Your task to perform on an android device: Go to battery settings Image 0: 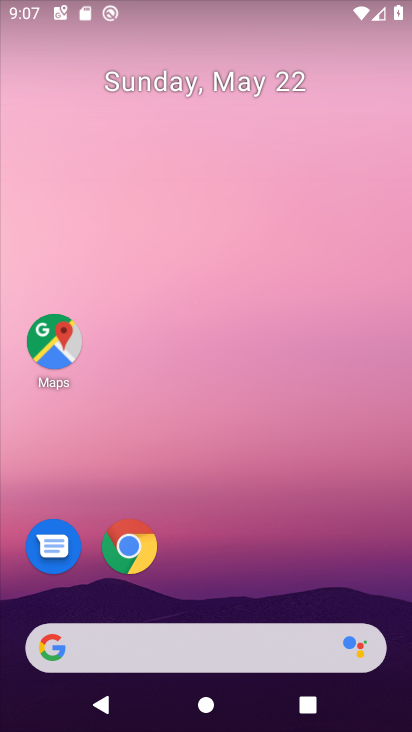
Step 0: drag from (372, 600) to (343, 156)
Your task to perform on an android device: Go to battery settings Image 1: 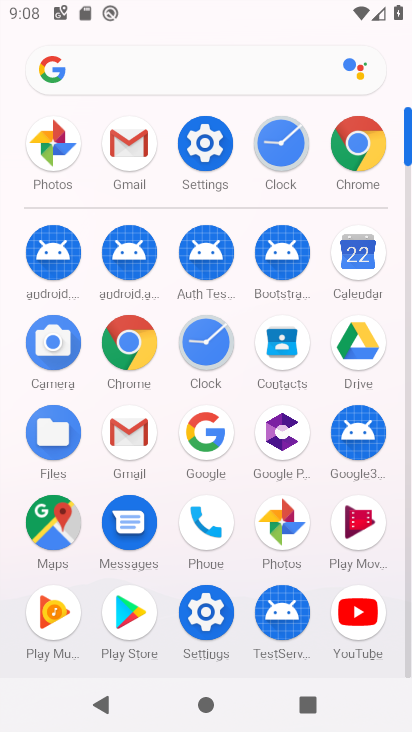
Step 1: click (205, 154)
Your task to perform on an android device: Go to battery settings Image 2: 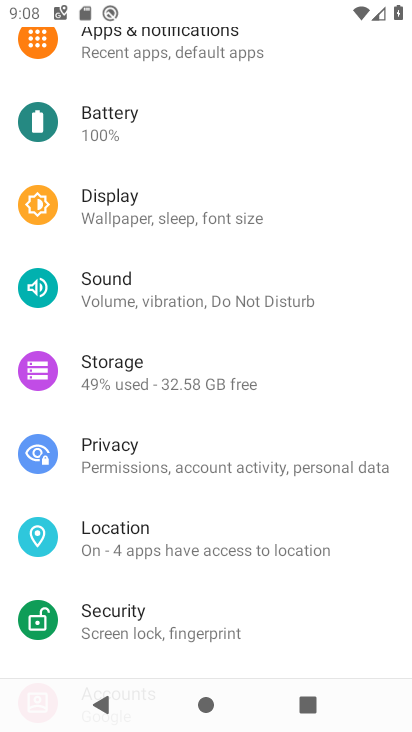
Step 2: drag from (369, 596) to (357, 308)
Your task to perform on an android device: Go to battery settings Image 3: 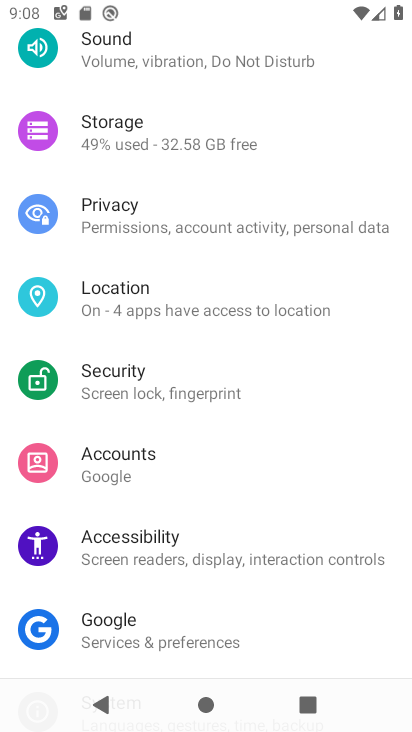
Step 3: drag from (353, 597) to (344, 385)
Your task to perform on an android device: Go to battery settings Image 4: 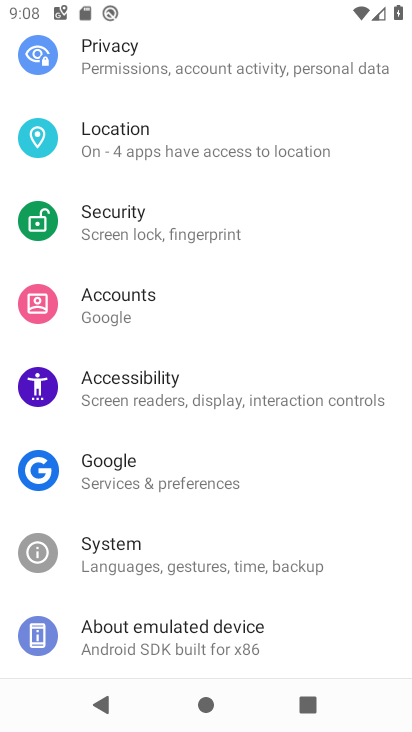
Step 4: drag from (360, 598) to (356, 416)
Your task to perform on an android device: Go to battery settings Image 5: 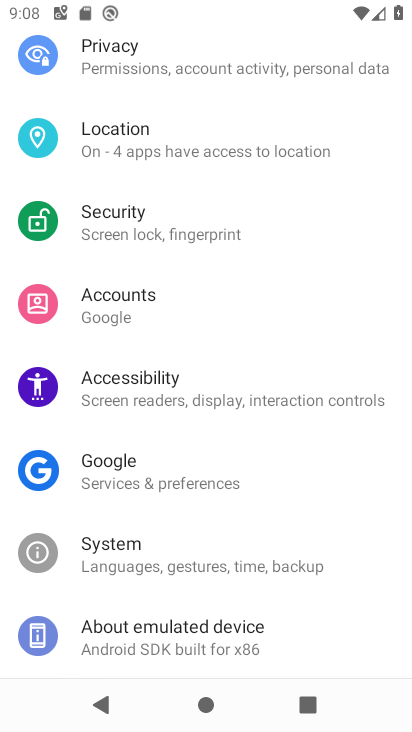
Step 5: drag from (346, 267) to (352, 417)
Your task to perform on an android device: Go to battery settings Image 6: 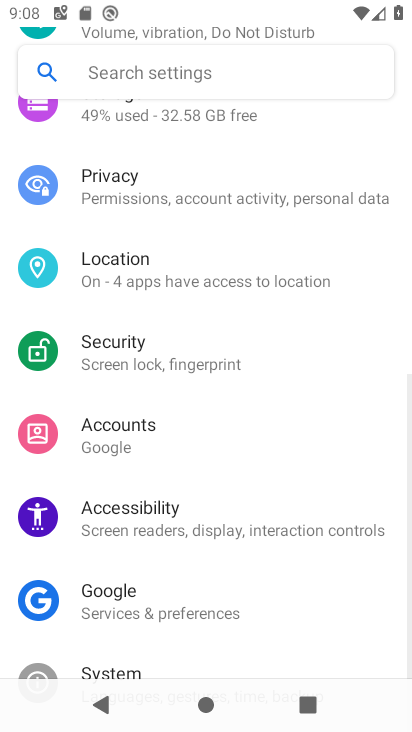
Step 6: drag from (360, 252) to (350, 392)
Your task to perform on an android device: Go to battery settings Image 7: 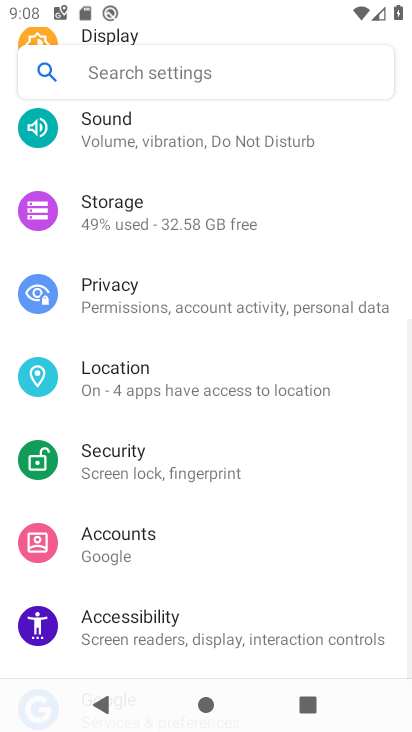
Step 7: drag from (355, 222) to (348, 372)
Your task to perform on an android device: Go to battery settings Image 8: 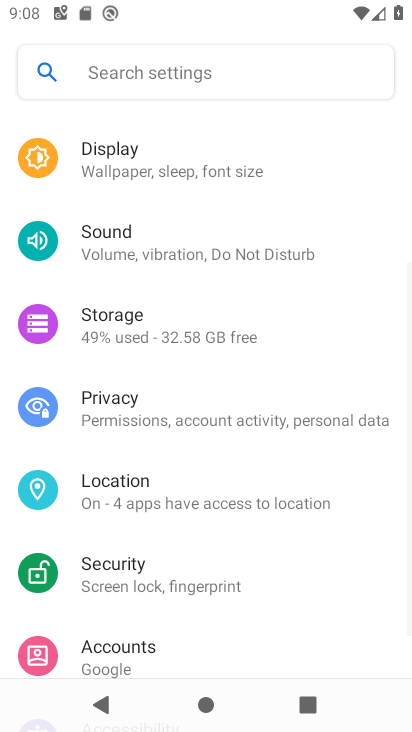
Step 8: drag from (356, 223) to (347, 387)
Your task to perform on an android device: Go to battery settings Image 9: 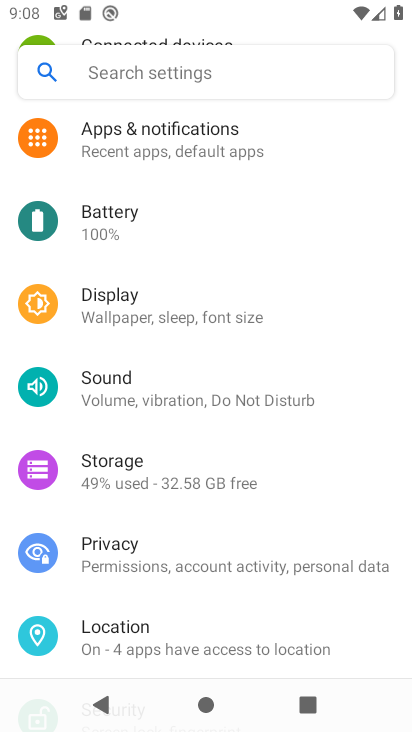
Step 9: drag from (351, 217) to (362, 412)
Your task to perform on an android device: Go to battery settings Image 10: 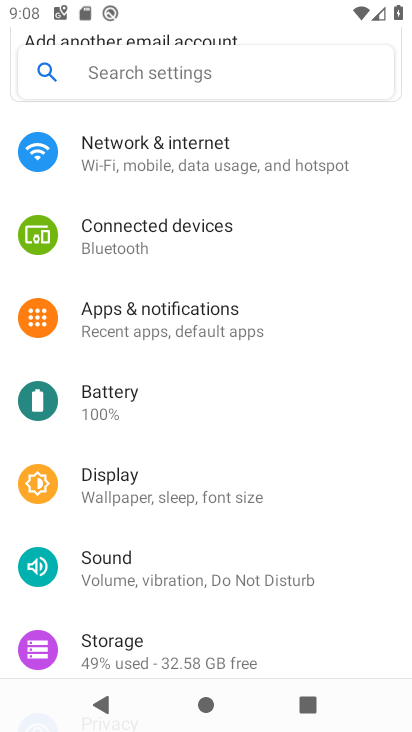
Step 10: drag from (365, 215) to (347, 399)
Your task to perform on an android device: Go to battery settings Image 11: 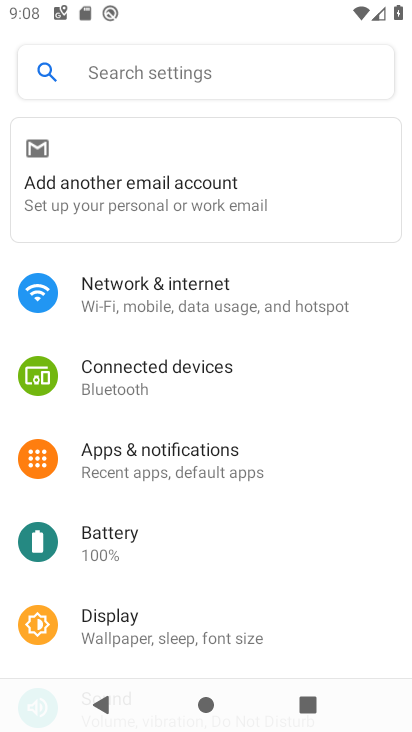
Step 11: click (138, 555)
Your task to perform on an android device: Go to battery settings Image 12: 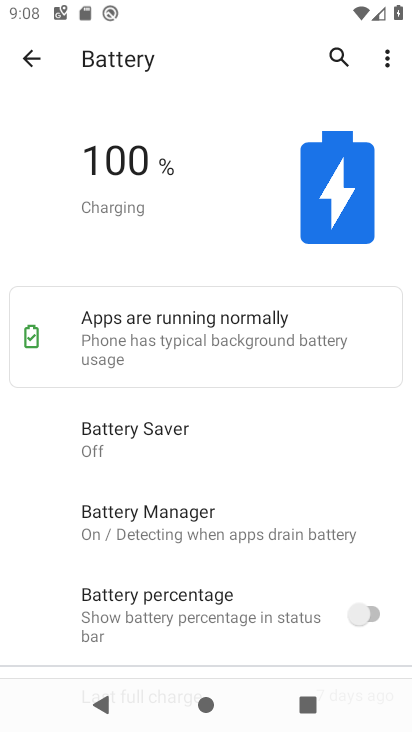
Step 12: task complete